Your task to perform on an android device: check out phone information Image 0: 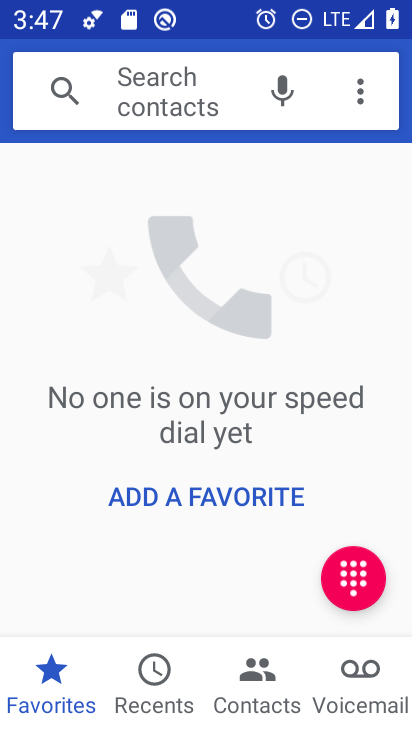
Step 0: press home button
Your task to perform on an android device: check out phone information Image 1: 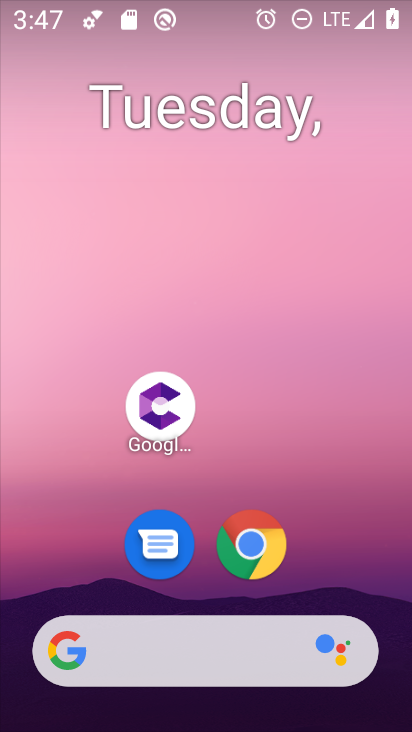
Step 1: drag from (337, 509) to (366, 166)
Your task to perform on an android device: check out phone information Image 2: 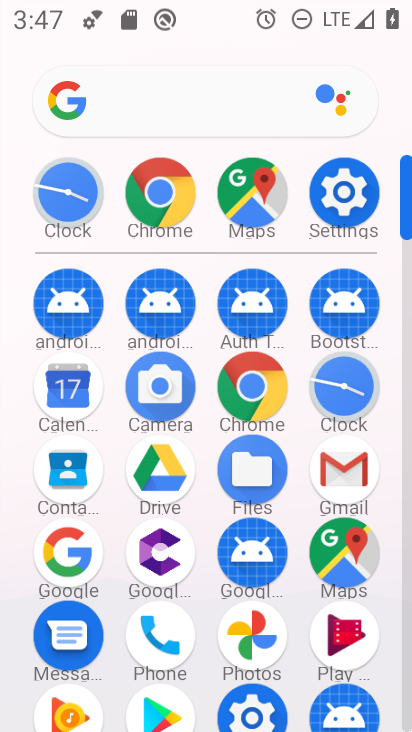
Step 2: drag from (195, 509) to (205, 428)
Your task to perform on an android device: check out phone information Image 3: 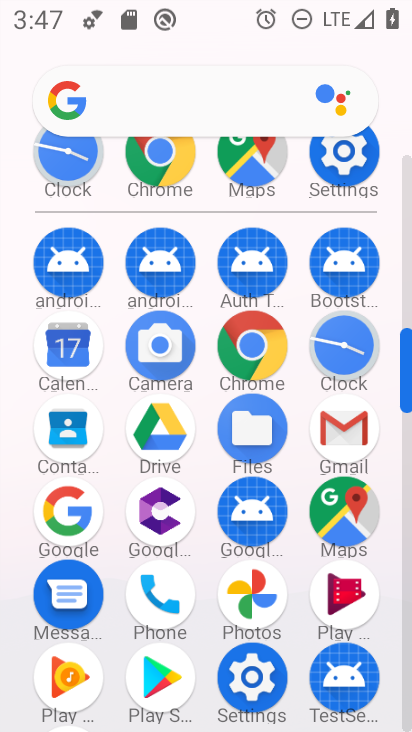
Step 3: drag from (199, 524) to (203, 373)
Your task to perform on an android device: check out phone information Image 4: 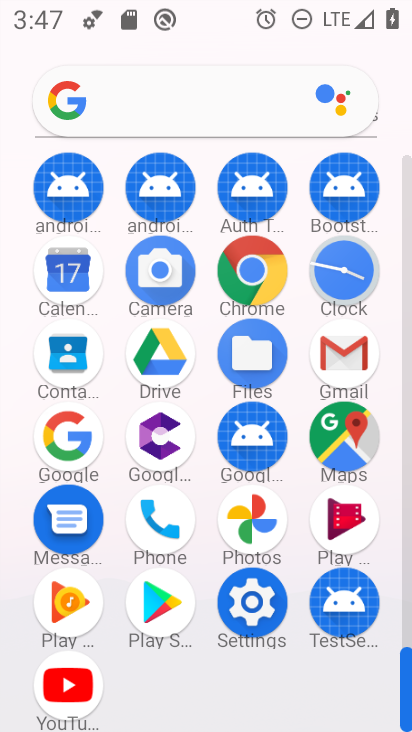
Step 4: click (176, 522)
Your task to perform on an android device: check out phone information Image 5: 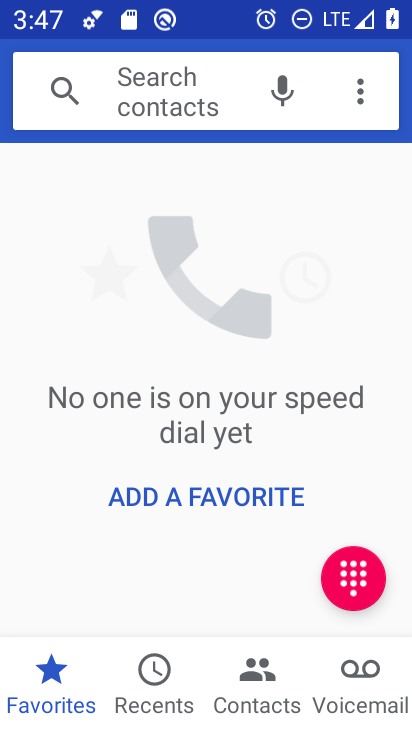
Step 5: click (159, 689)
Your task to perform on an android device: check out phone information Image 6: 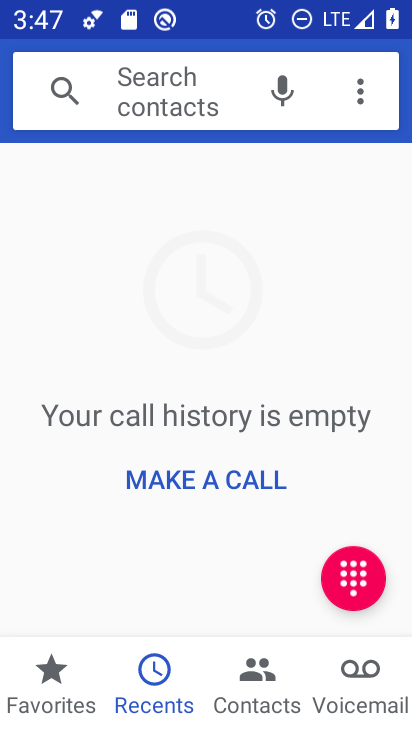
Step 6: task complete